Your task to perform on an android device: make emails show in primary in the gmail app Image 0: 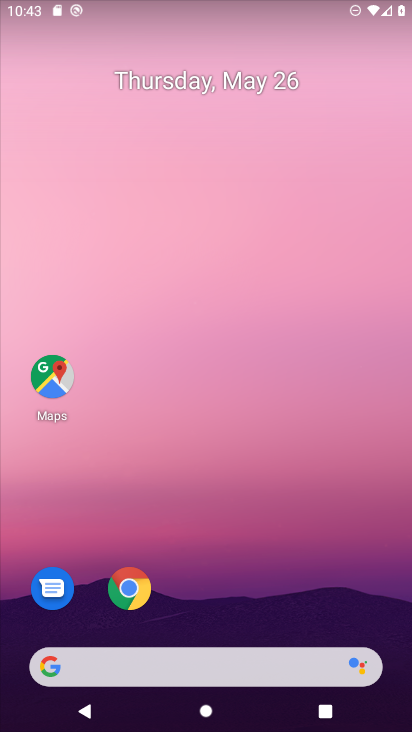
Step 0: drag from (393, 595) to (346, 121)
Your task to perform on an android device: make emails show in primary in the gmail app Image 1: 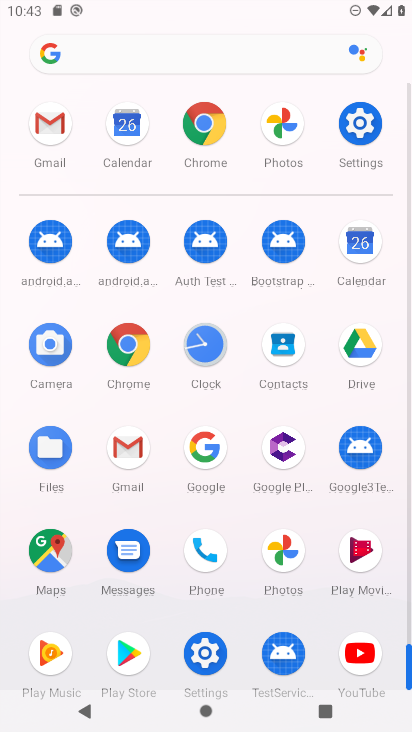
Step 1: click (127, 447)
Your task to perform on an android device: make emails show in primary in the gmail app Image 2: 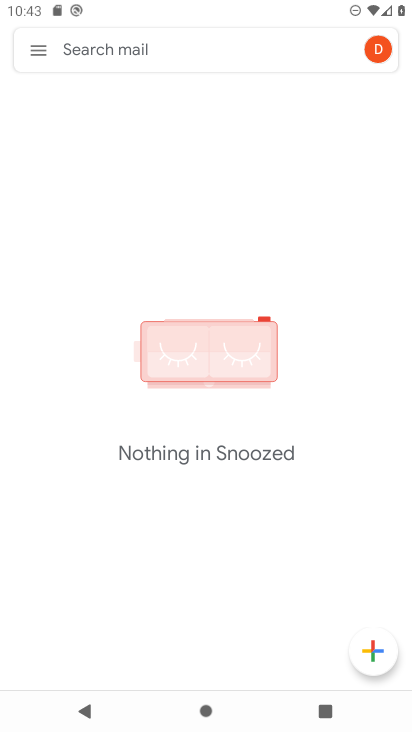
Step 2: click (37, 54)
Your task to perform on an android device: make emails show in primary in the gmail app Image 3: 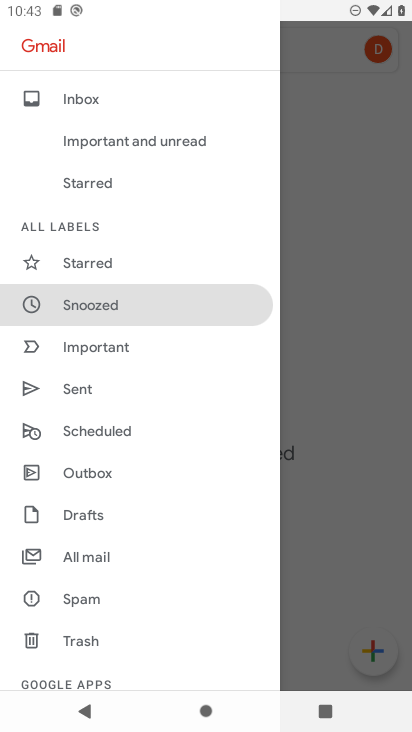
Step 3: drag from (169, 629) to (195, 267)
Your task to perform on an android device: make emails show in primary in the gmail app Image 4: 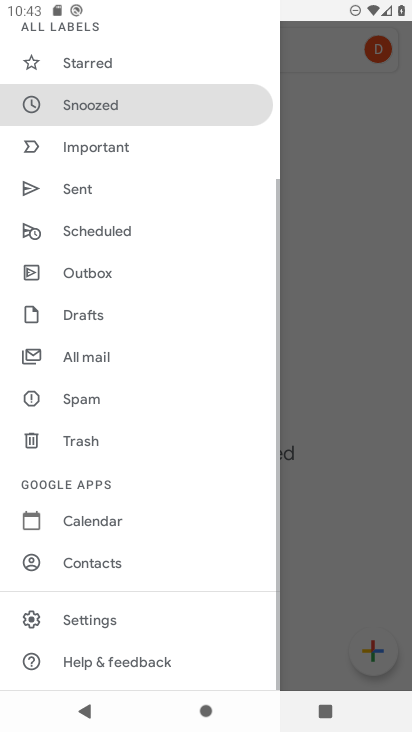
Step 4: click (82, 615)
Your task to perform on an android device: make emails show in primary in the gmail app Image 5: 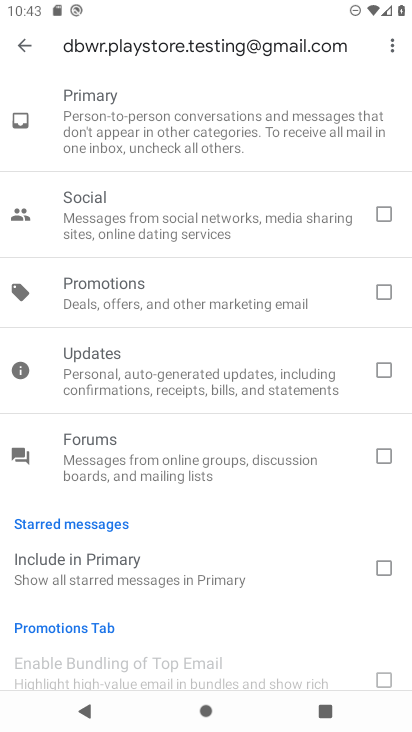
Step 5: task complete